Your task to perform on an android device: turn off location history Image 0: 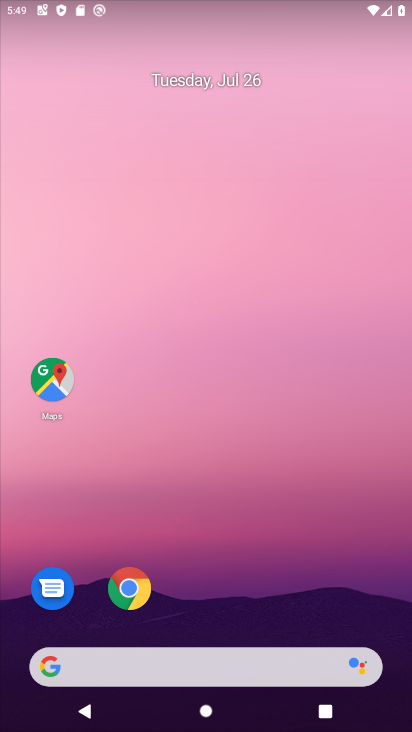
Step 0: drag from (238, 620) to (196, 110)
Your task to perform on an android device: turn off location history Image 1: 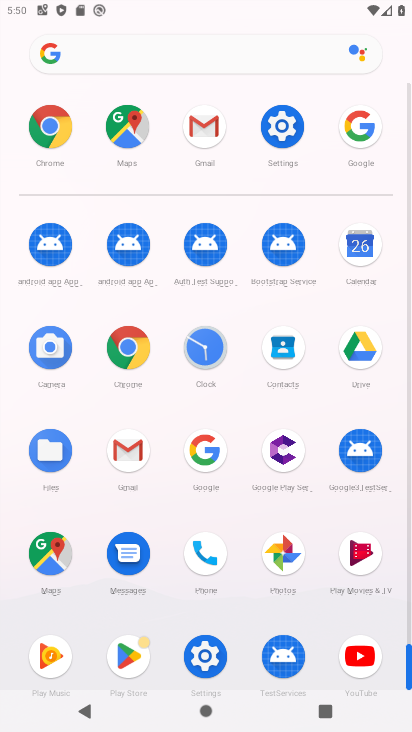
Step 1: click (284, 126)
Your task to perform on an android device: turn off location history Image 2: 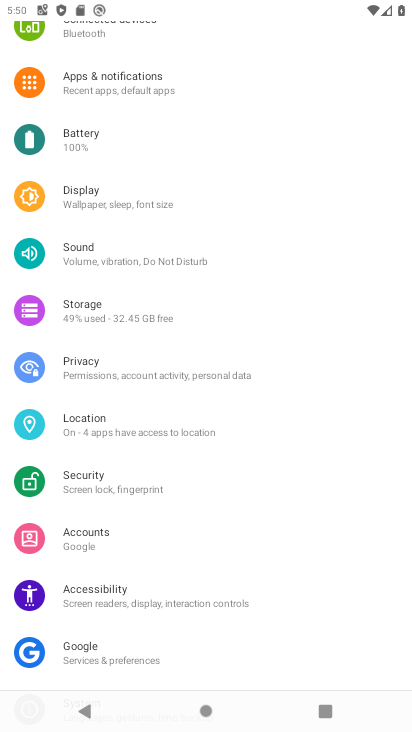
Step 2: drag from (139, 493) to (104, 381)
Your task to perform on an android device: turn off location history Image 3: 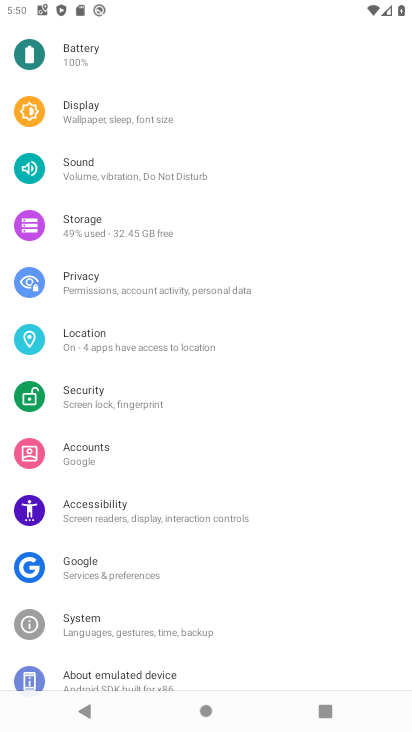
Step 3: click (132, 347)
Your task to perform on an android device: turn off location history Image 4: 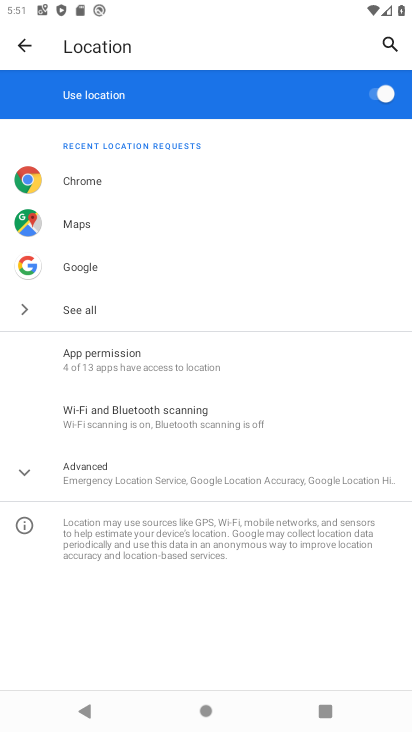
Step 4: click (164, 469)
Your task to perform on an android device: turn off location history Image 5: 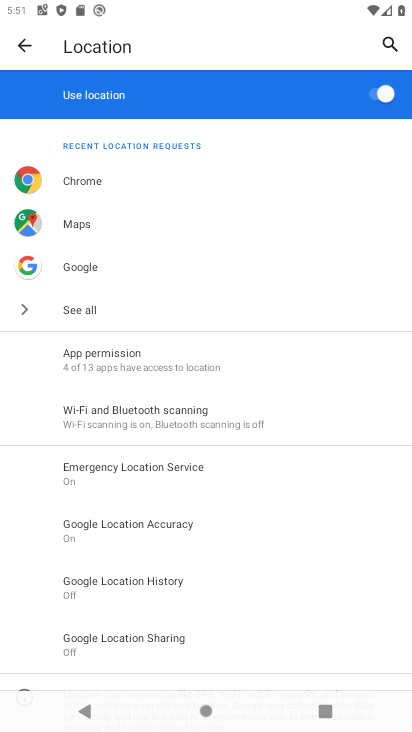
Step 5: click (184, 590)
Your task to perform on an android device: turn off location history Image 6: 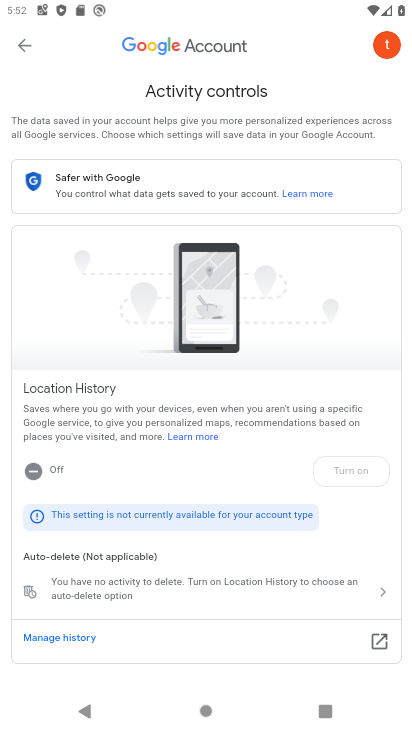
Step 6: task complete